Your task to perform on an android device: turn off smart reply in the gmail app Image 0: 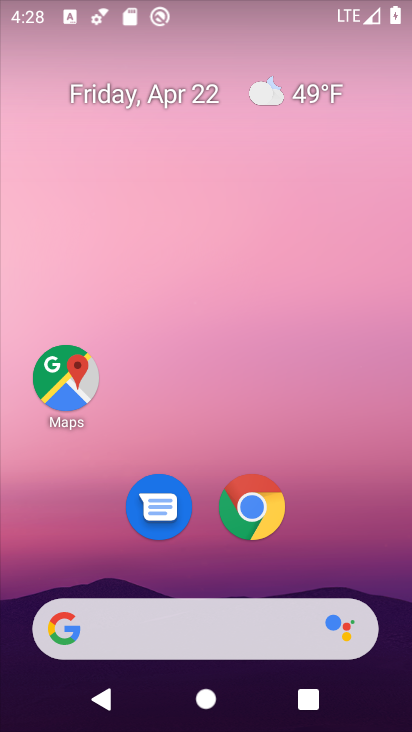
Step 0: drag from (371, 567) to (332, 12)
Your task to perform on an android device: turn off smart reply in the gmail app Image 1: 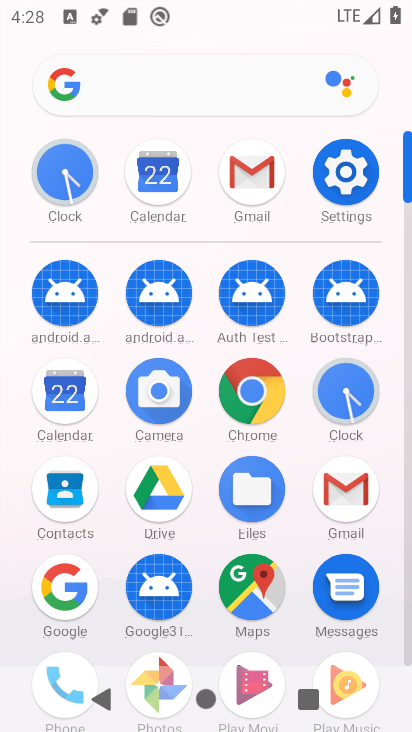
Step 1: click (409, 651)
Your task to perform on an android device: turn off smart reply in the gmail app Image 2: 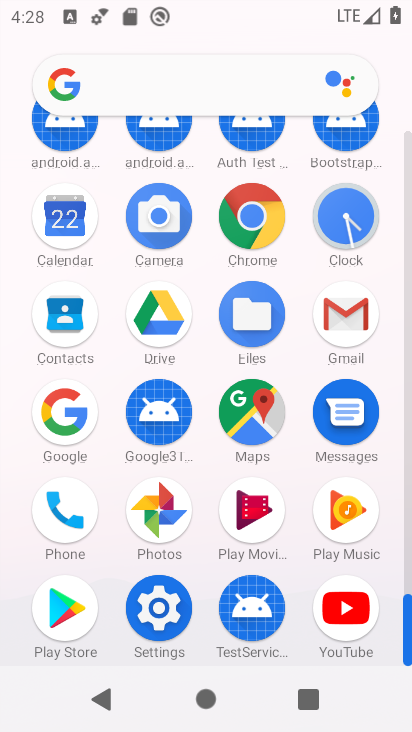
Step 2: click (341, 314)
Your task to perform on an android device: turn off smart reply in the gmail app Image 3: 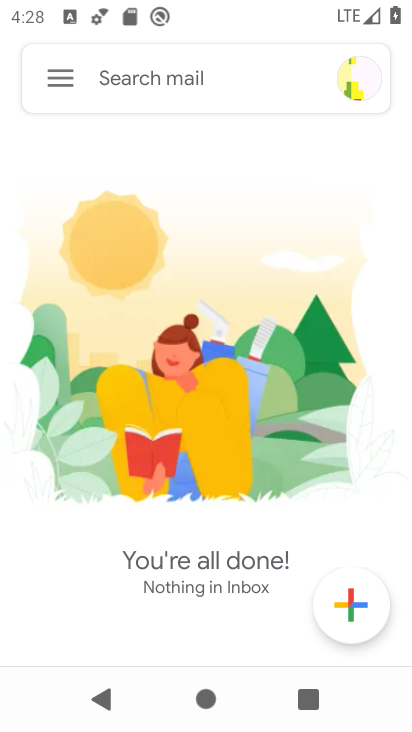
Step 3: click (52, 79)
Your task to perform on an android device: turn off smart reply in the gmail app Image 4: 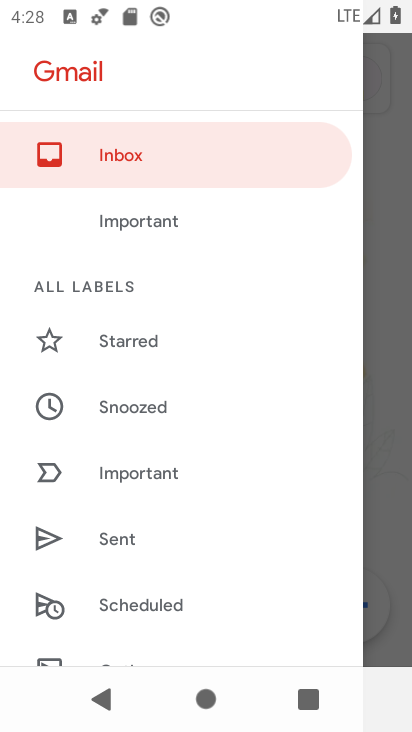
Step 4: drag from (249, 569) to (252, 195)
Your task to perform on an android device: turn off smart reply in the gmail app Image 5: 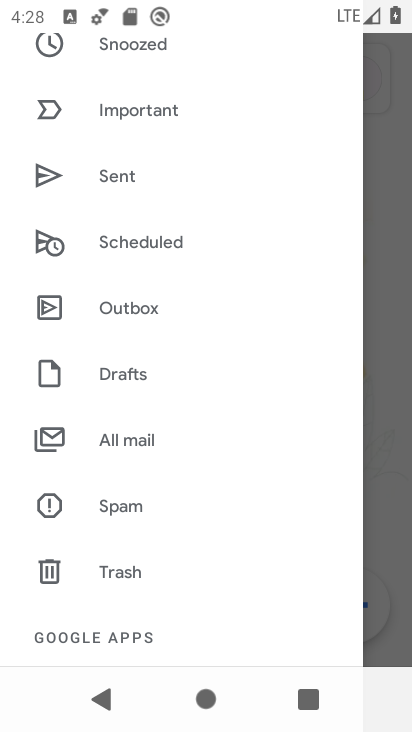
Step 5: drag from (213, 539) to (203, 160)
Your task to perform on an android device: turn off smart reply in the gmail app Image 6: 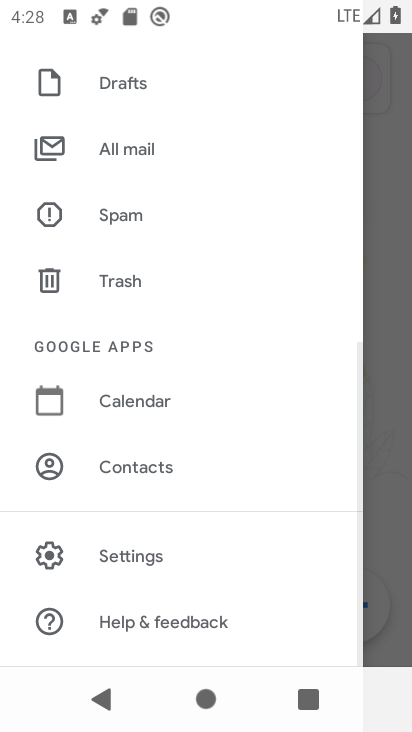
Step 6: click (117, 547)
Your task to perform on an android device: turn off smart reply in the gmail app Image 7: 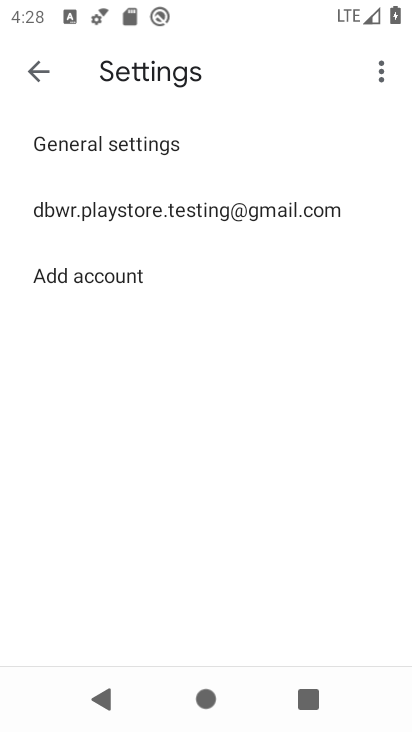
Step 7: click (129, 195)
Your task to perform on an android device: turn off smart reply in the gmail app Image 8: 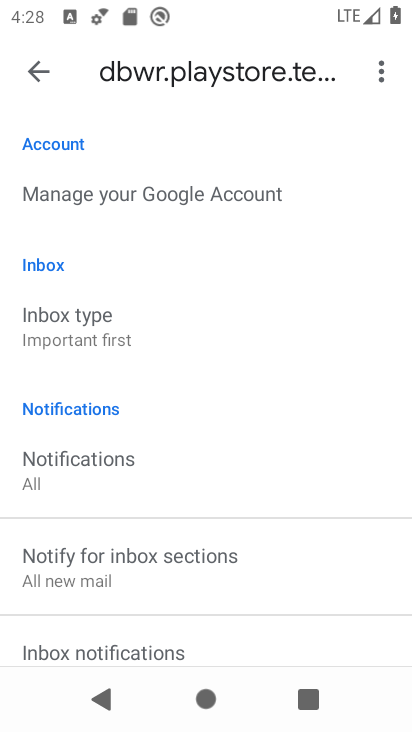
Step 8: drag from (207, 623) to (304, 296)
Your task to perform on an android device: turn off smart reply in the gmail app Image 9: 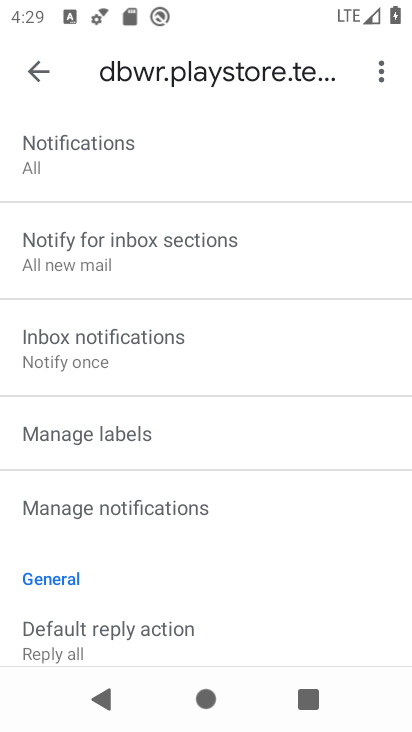
Step 9: drag from (283, 530) to (304, 230)
Your task to perform on an android device: turn off smart reply in the gmail app Image 10: 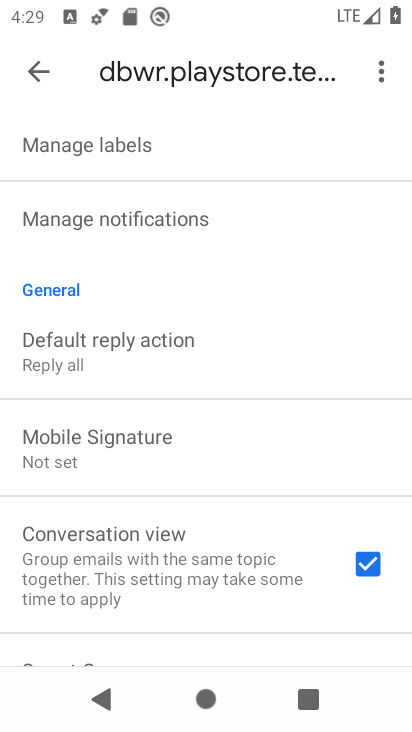
Step 10: drag from (250, 512) to (260, 124)
Your task to perform on an android device: turn off smart reply in the gmail app Image 11: 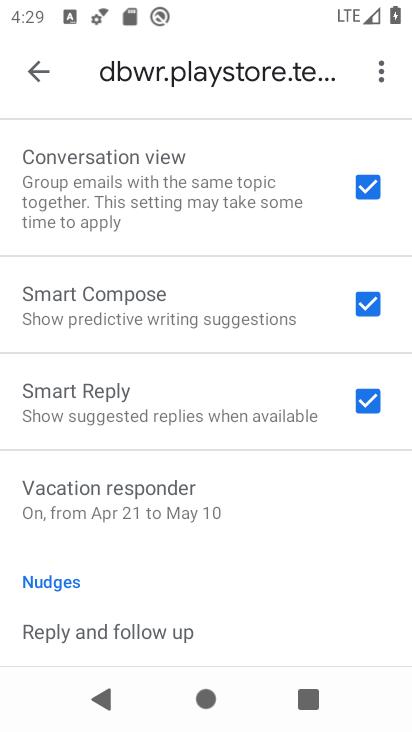
Step 11: click (360, 397)
Your task to perform on an android device: turn off smart reply in the gmail app Image 12: 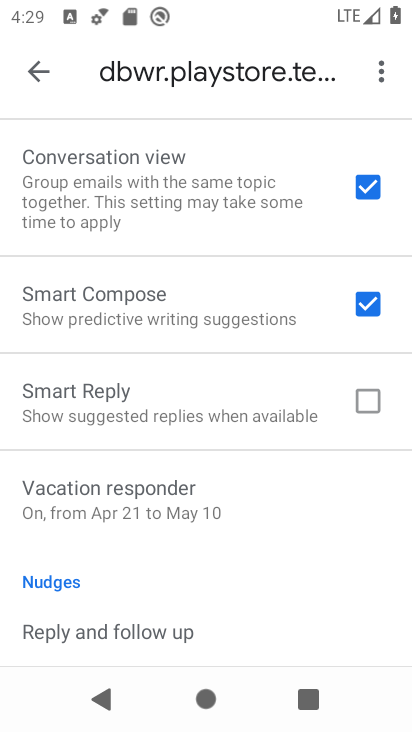
Step 12: task complete